Your task to perform on an android device: add a contact Image 0: 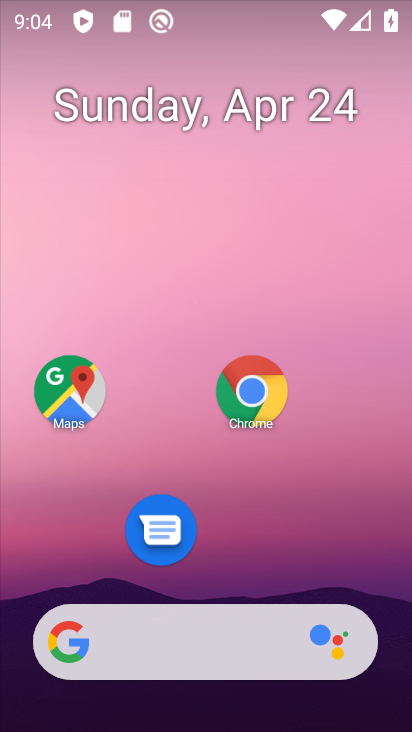
Step 0: drag from (261, 552) to (317, 79)
Your task to perform on an android device: add a contact Image 1: 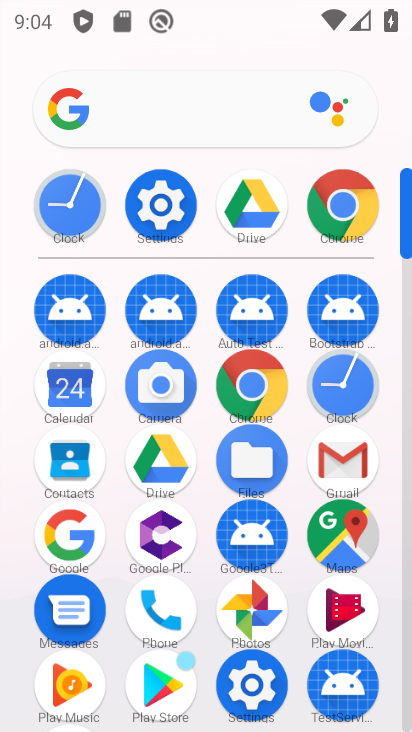
Step 1: click (94, 456)
Your task to perform on an android device: add a contact Image 2: 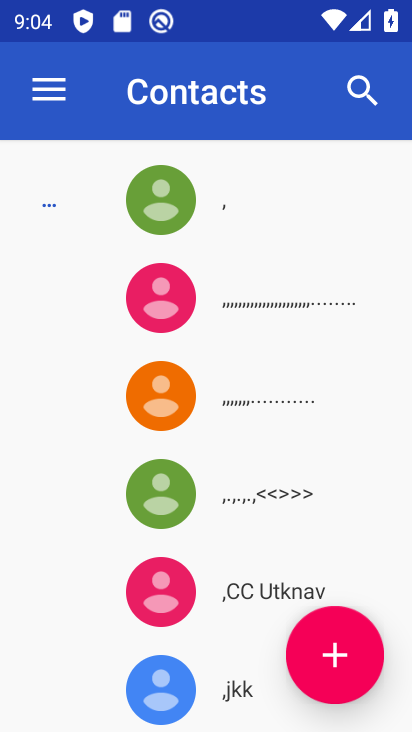
Step 2: click (344, 653)
Your task to perform on an android device: add a contact Image 3: 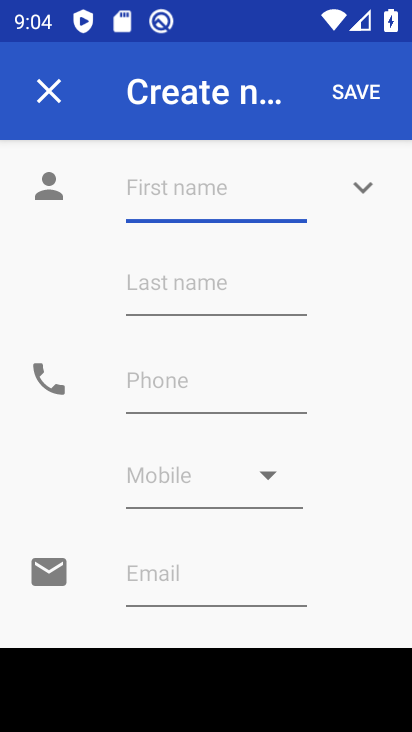
Step 3: type ",,"
Your task to perform on an android device: add a contact Image 4: 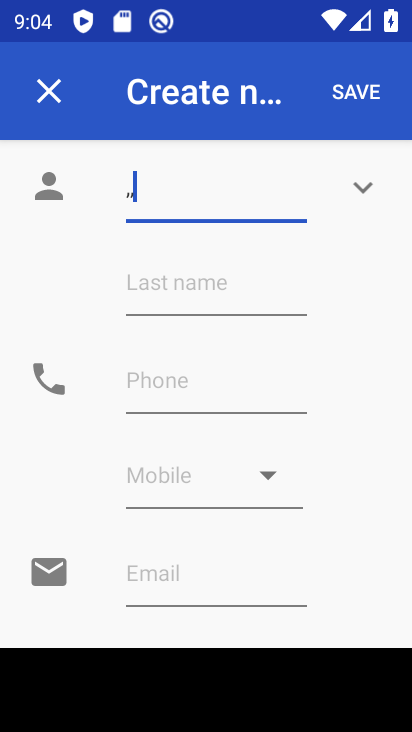
Step 4: click (206, 398)
Your task to perform on an android device: add a contact Image 5: 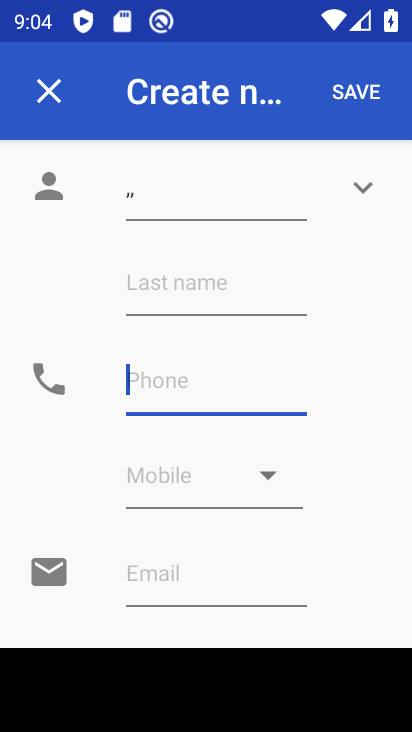
Step 5: type "098765456"
Your task to perform on an android device: add a contact Image 6: 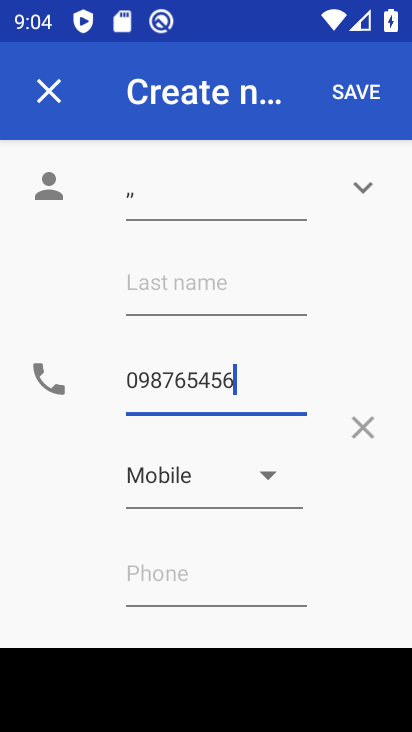
Step 6: click (374, 78)
Your task to perform on an android device: add a contact Image 7: 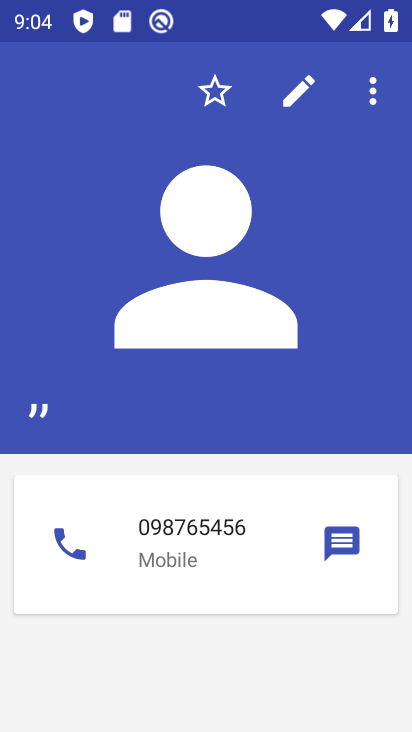
Step 7: task complete